Your task to perform on an android device: Is it going to rain tomorrow? Image 0: 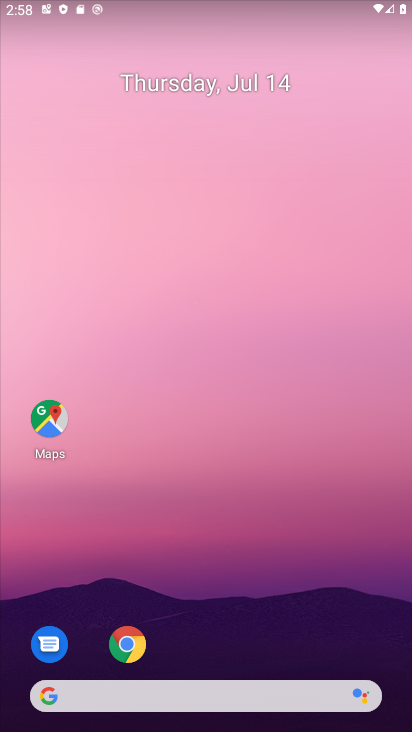
Step 0: drag from (172, 664) to (195, 53)
Your task to perform on an android device: Is it going to rain tomorrow? Image 1: 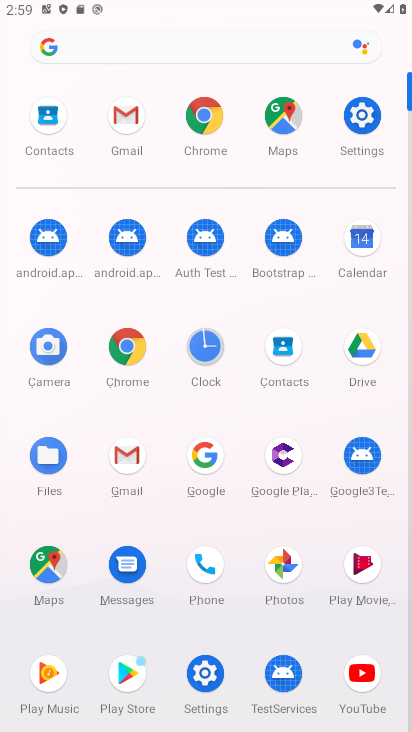
Step 1: click (114, 42)
Your task to perform on an android device: Is it going to rain tomorrow? Image 2: 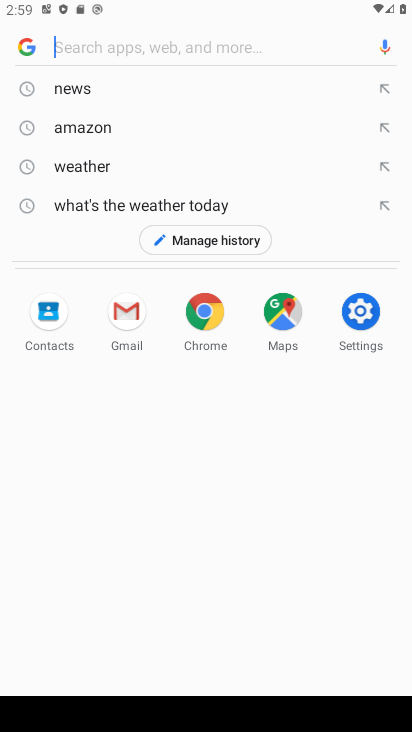
Step 2: type "Is it going to rain tomorrow?"
Your task to perform on an android device: Is it going to rain tomorrow? Image 3: 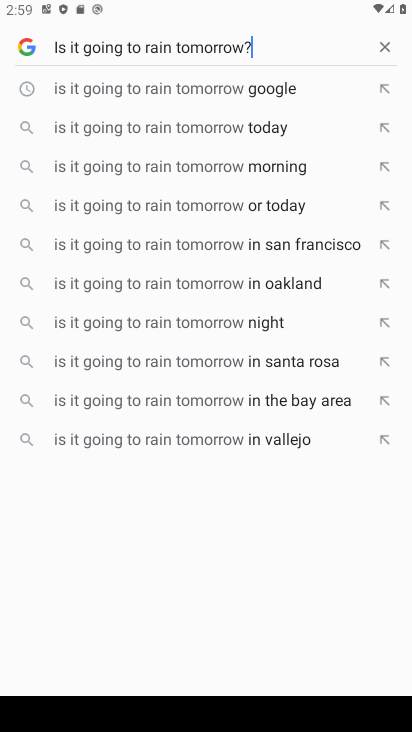
Step 3: click (168, 130)
Your task to perform on an android device: Is it going to rain tomorrow? Image 4: 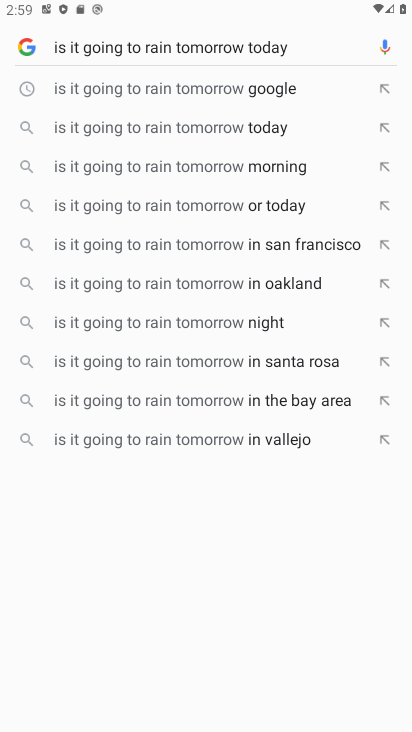
Step 4: task complete